Your task to perform on an android device: turn on showing notifications on the lock screen Image 0: 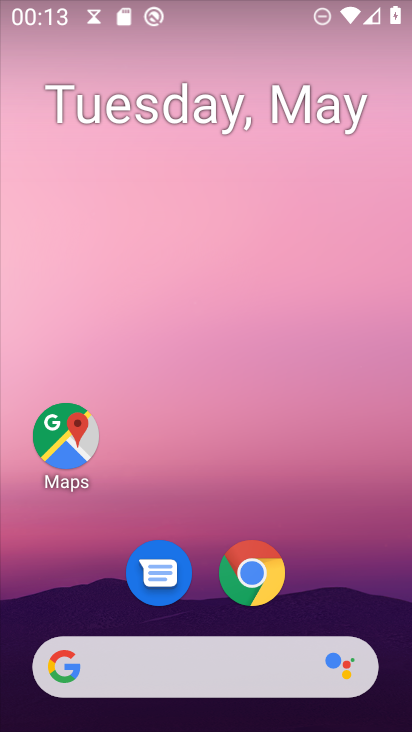
Step 0: drag from (334, 528) to (258, 8)
Your task to perform on an android device: turn on showing notifications on the lock screen Image 1: 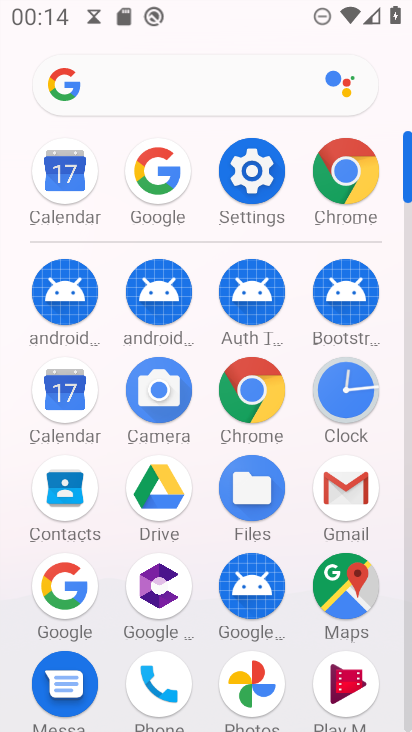
Step 1: click (258, 171)
Your task to perform on an android device: turn on showing notifications on the lock screen Image 2: 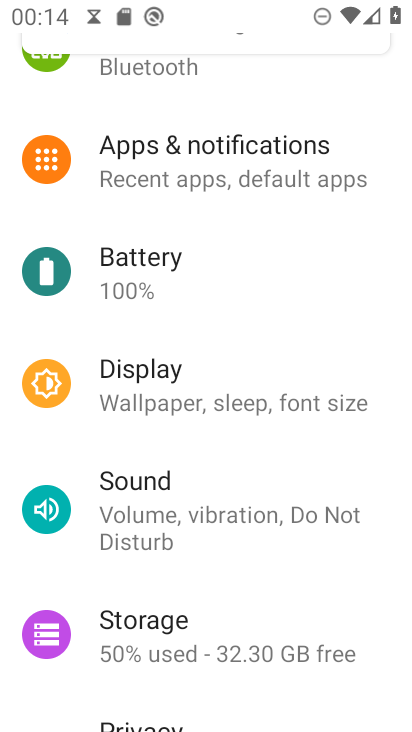
Step 2: click (243, 165)
Your task to perform on an android device: turn on showing notifications on the lock screen Image 3: 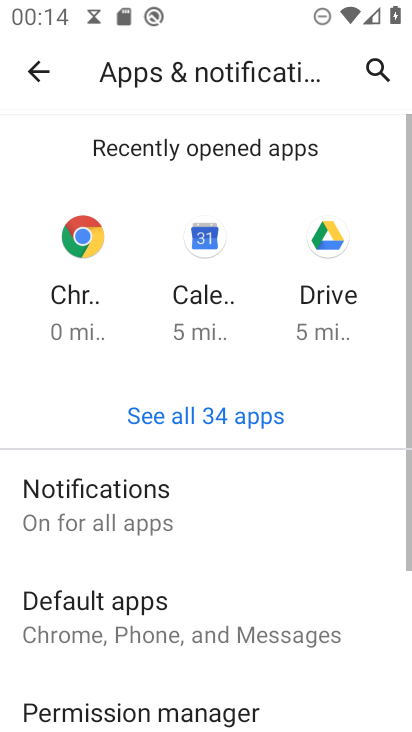
Step 3: click (182, 486)
Your task to perform on an android device: turn on showing notifications on the lock screen Image 4: 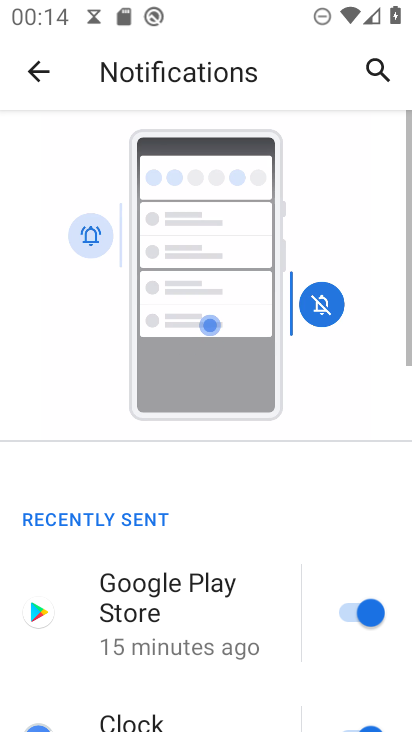
Step 4: drag from (286, 597) to (251, 1)
Your task to perform on an android device: turn on showing notifications on the lock screen Image 5: 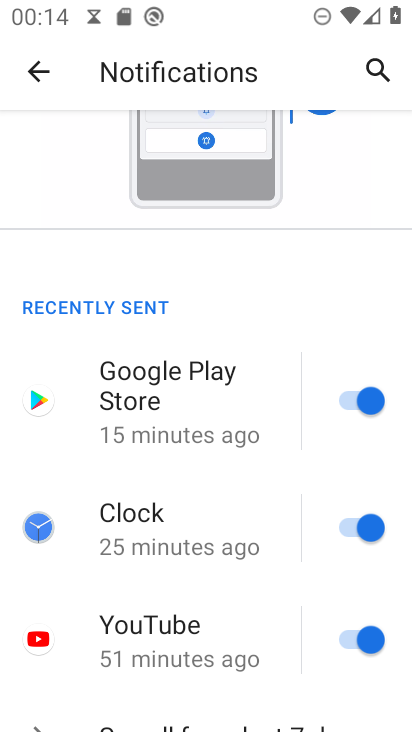
Step 5: drag from (212, 608) to (188, 75)
Your task to perform on an android device: turn on showing notifications on the lock screen Image 6: 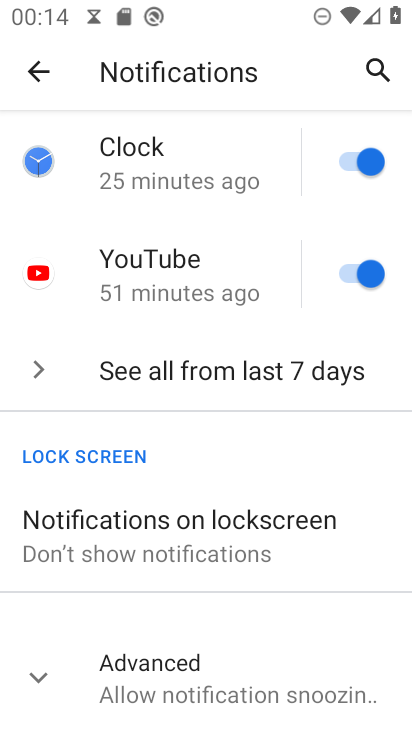
Step 6: click (184, 542)
Your task to perform on an android device: turn on showing notifications on the lock screen Image 7: 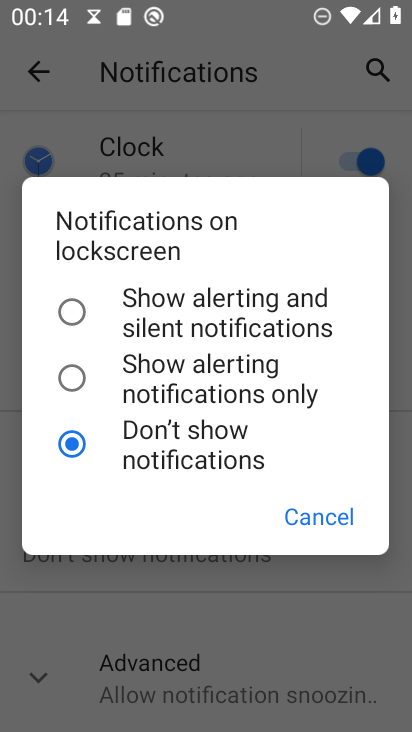
Step 7: click (220, 318)
Your task to perform on an android device: turn on showing notifications on the lock screen Image 8: 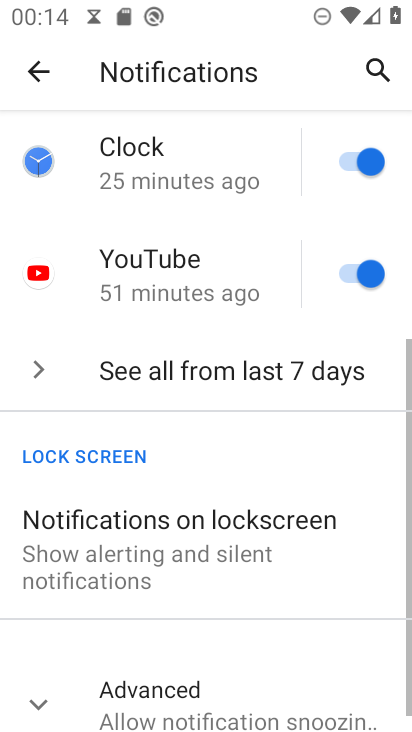
Step 8: task complete